Your task to perform on an android device: toggle location history Image 0: 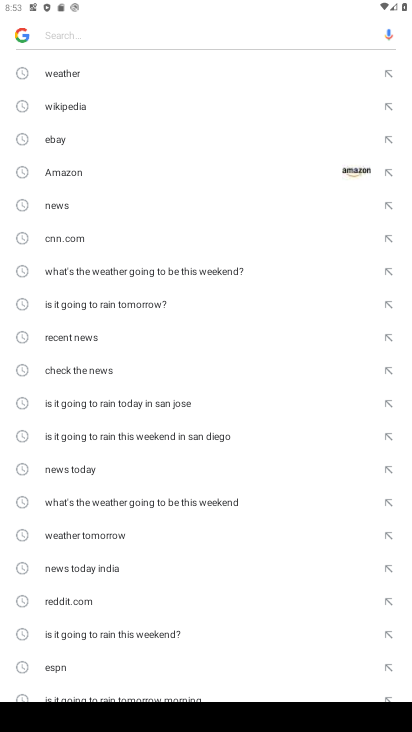
Step 0: press home button
Your task to perform on an android device: toggle location history Image 1: 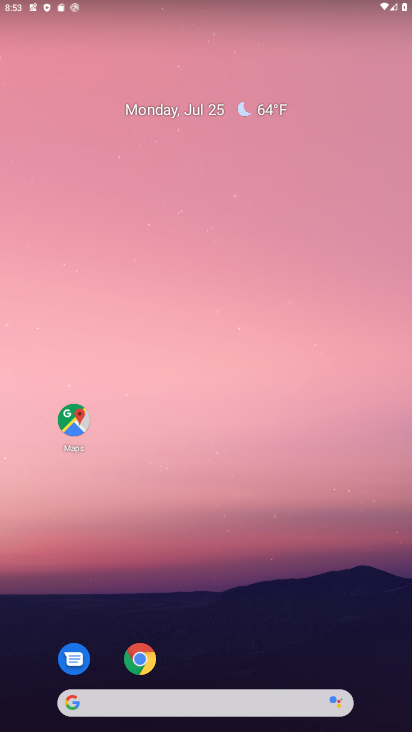
Step 1: drag from (362, 629) to (367, 97)
Your task to perform on an android device: toggle location history Image 2: 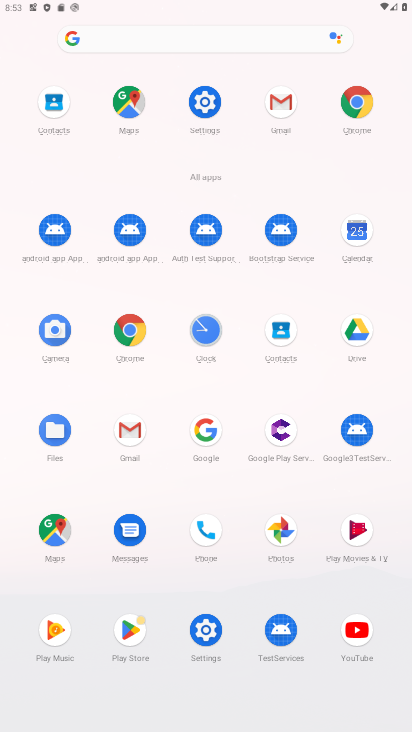
Step 2: click (214, 107)
Your task to perform on an android device: toggle location history Image 3: 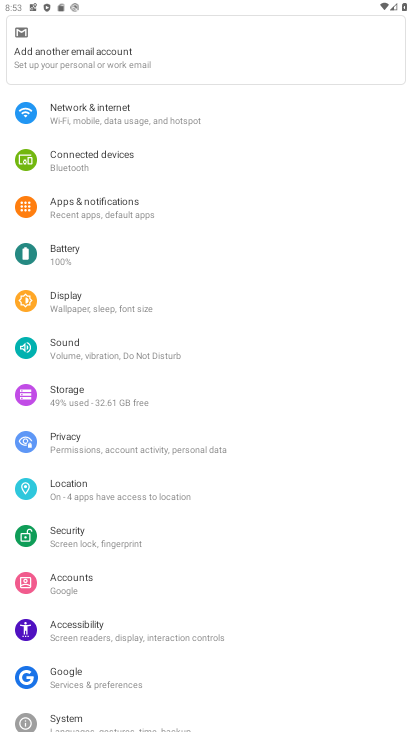
Step 3: drag from (327, 495) to (313, 371)
Your task to perform on an android device: toggle location history Image 4: 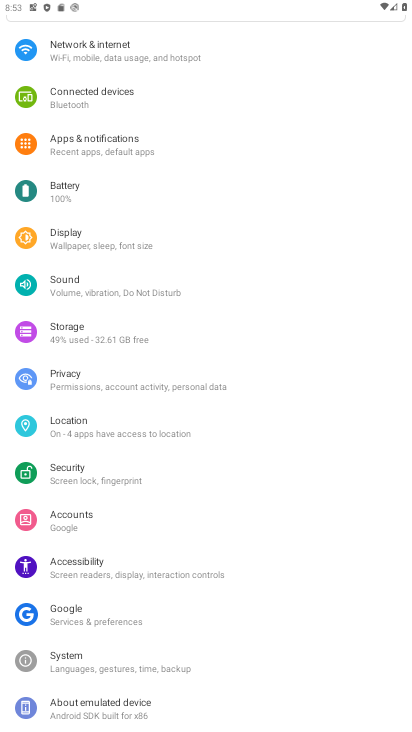
Step 4: drag from (285, 302) to (299, 412)
Your task to perform on an android device: toggle location history Image 5: 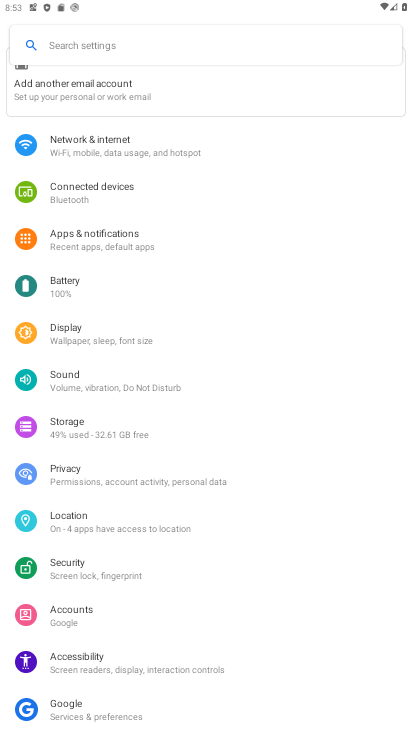
Step 5: drag from (310, 254) to (318, 401)
Your task to perform on an android device: toggle location history Image 6: 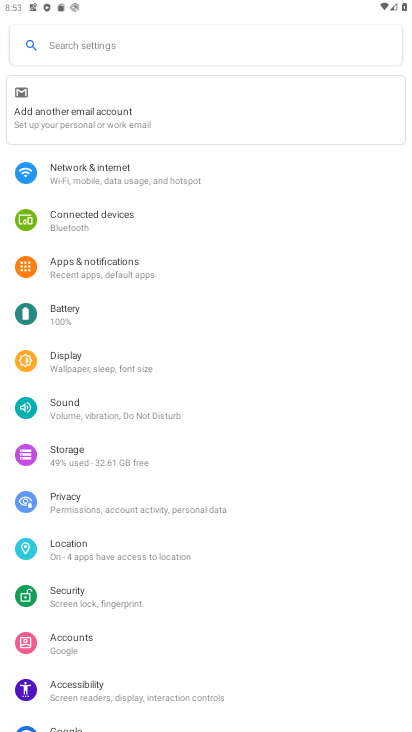
Step 6: click (231, 552)
Your task to perform on an android device: toggle location history Image 7: 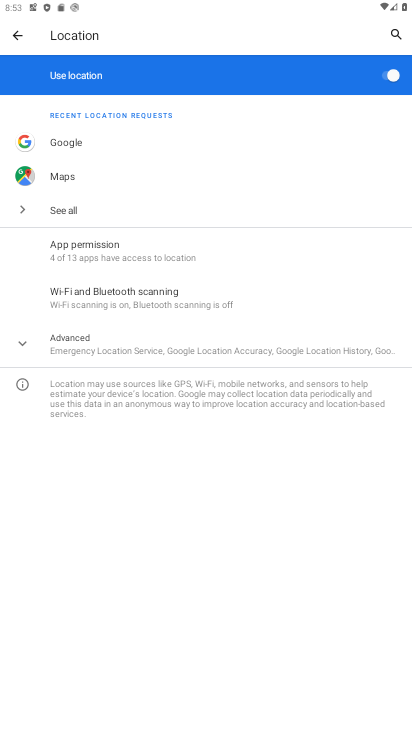
Step 7: click (209, 346)
Your task to perform on an android device: toggle location history Image 8: 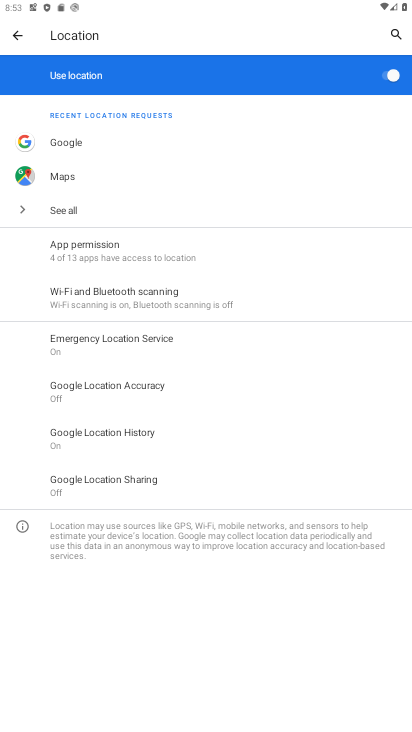
Step 8: click (133, 436)
Your task to perform on an android device: toggle location history Image 9: 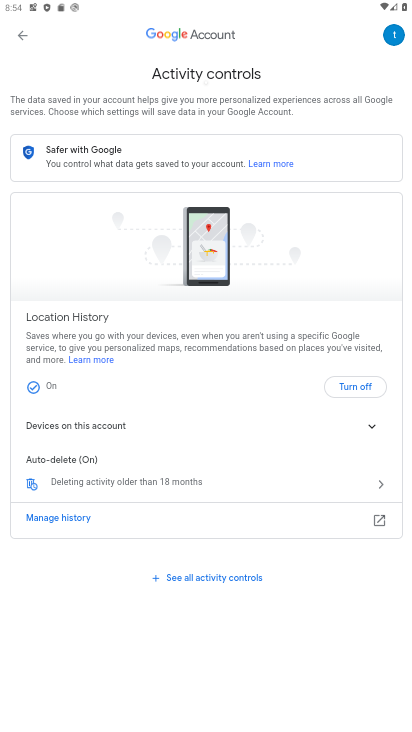
Step 9: click (366, 388)
Your task to perform on an android device: toggle location history Image 10: 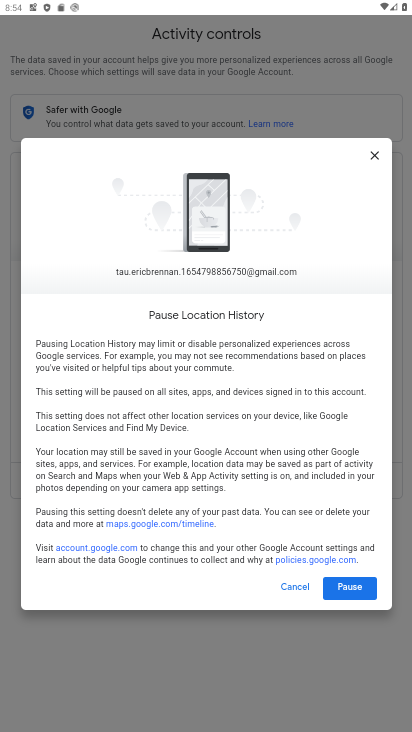
Step 10: click (351, 591)
Your task to perform on an android device: toggle location history Image 11: 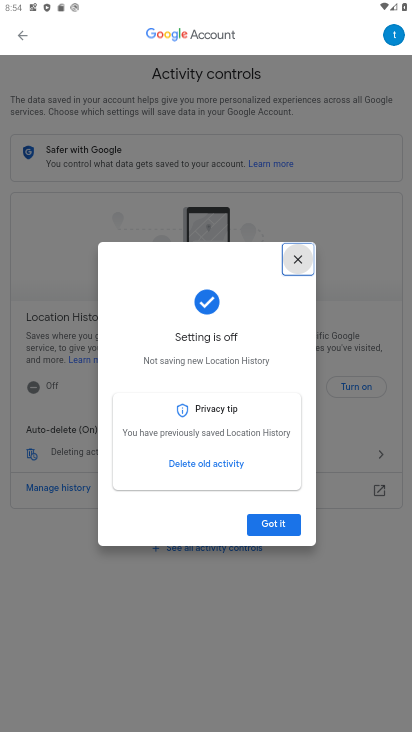
Step 11: task complete